Your task to perform on an android device: Open settings on Google Maps Image 0: 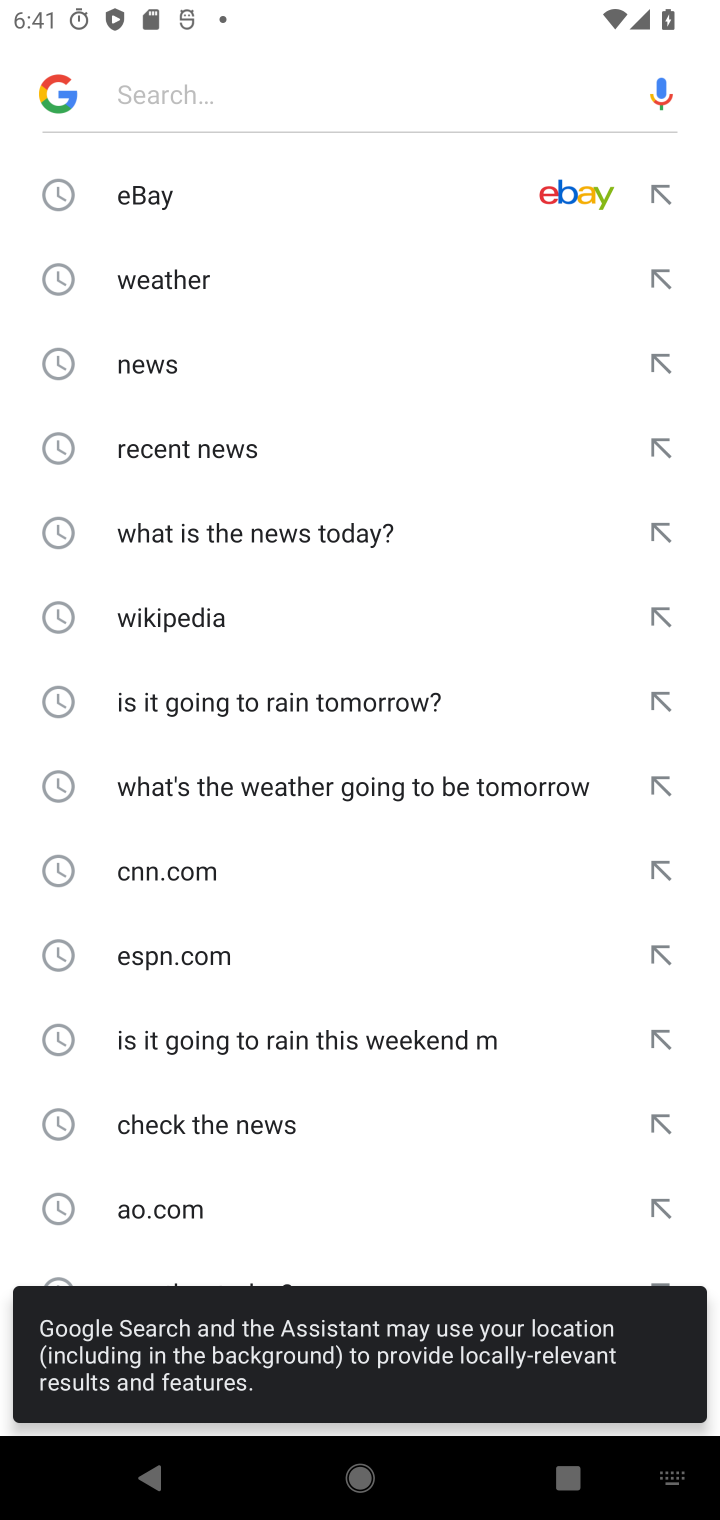
Step 0: press home button
Your task to perform on an android device: Open settings on Google Maps Image 1: 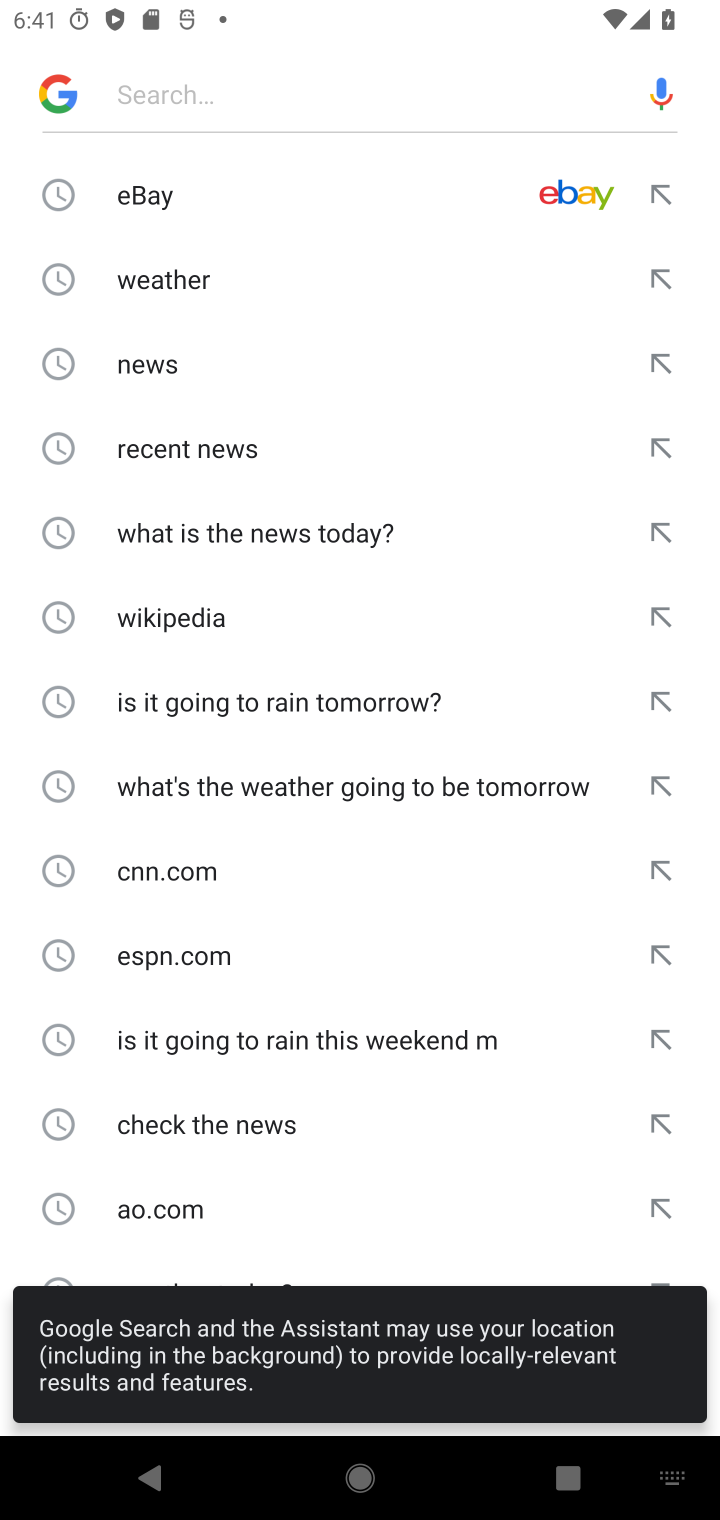
Step 1: press home button
Your task to perform on an android device: Open settings on Google Maps Image 2: 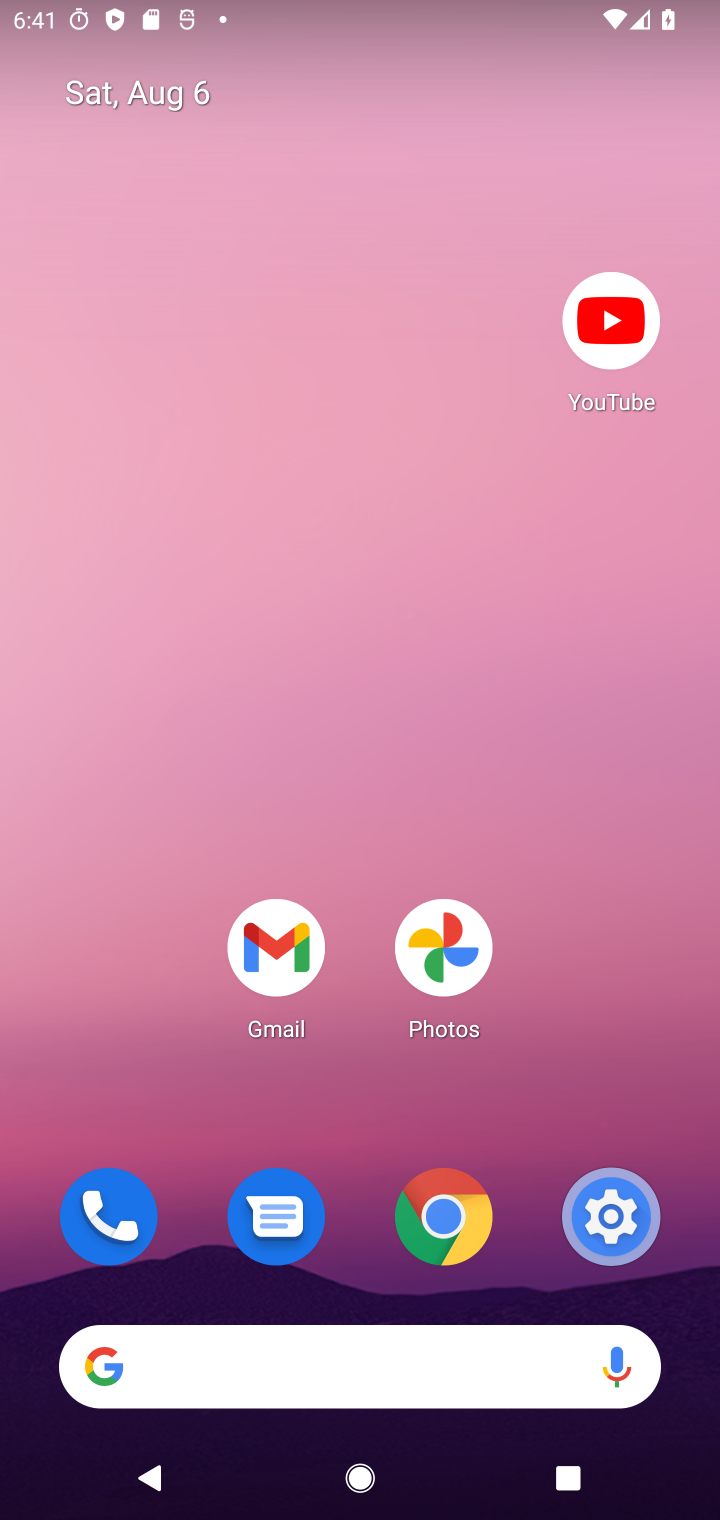
Step 2: drag from (567, 764) to (497, 72)
Your task to perform on an android device: Open settings on Google Maps Image 3: 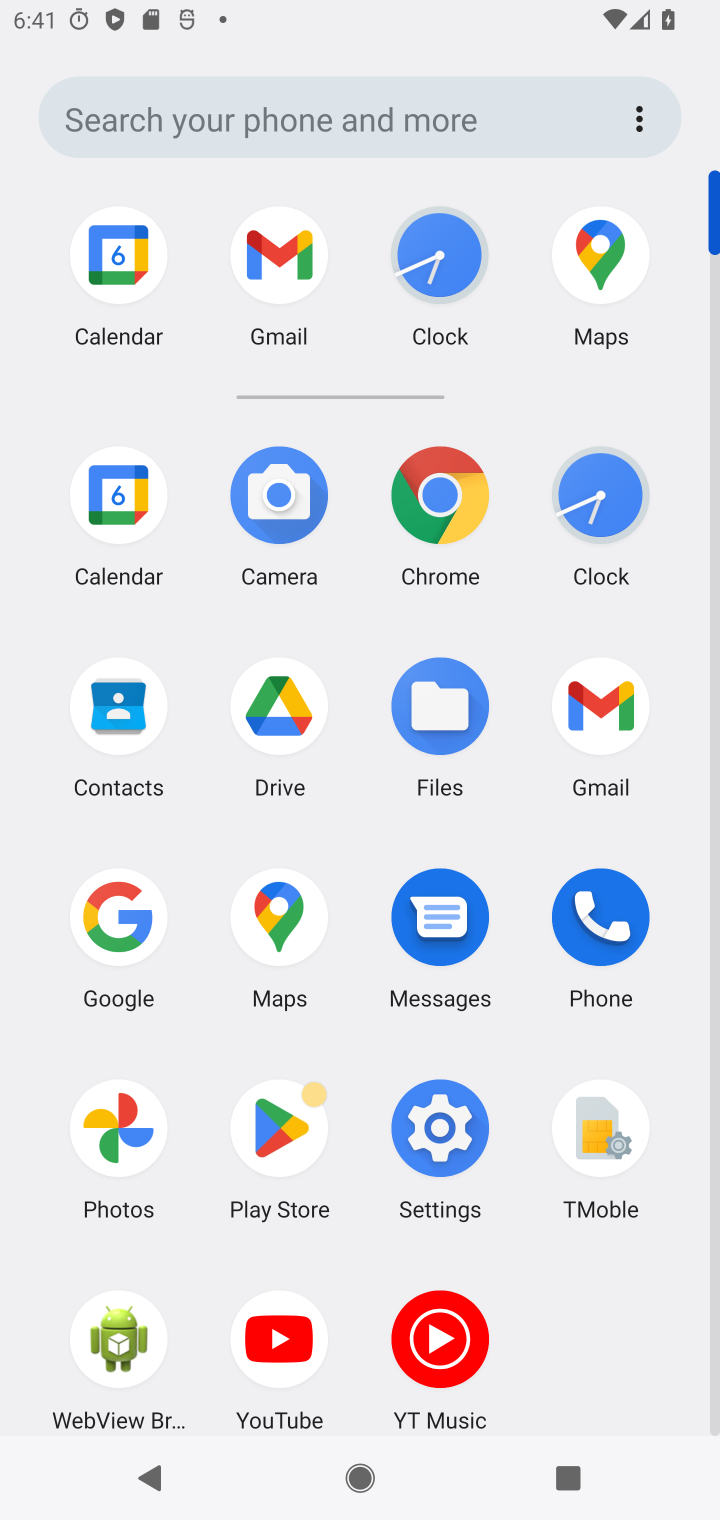
Step 3: click (287, 927)
Your task to perform on an android device: Open settings on Google Maps Image 4: 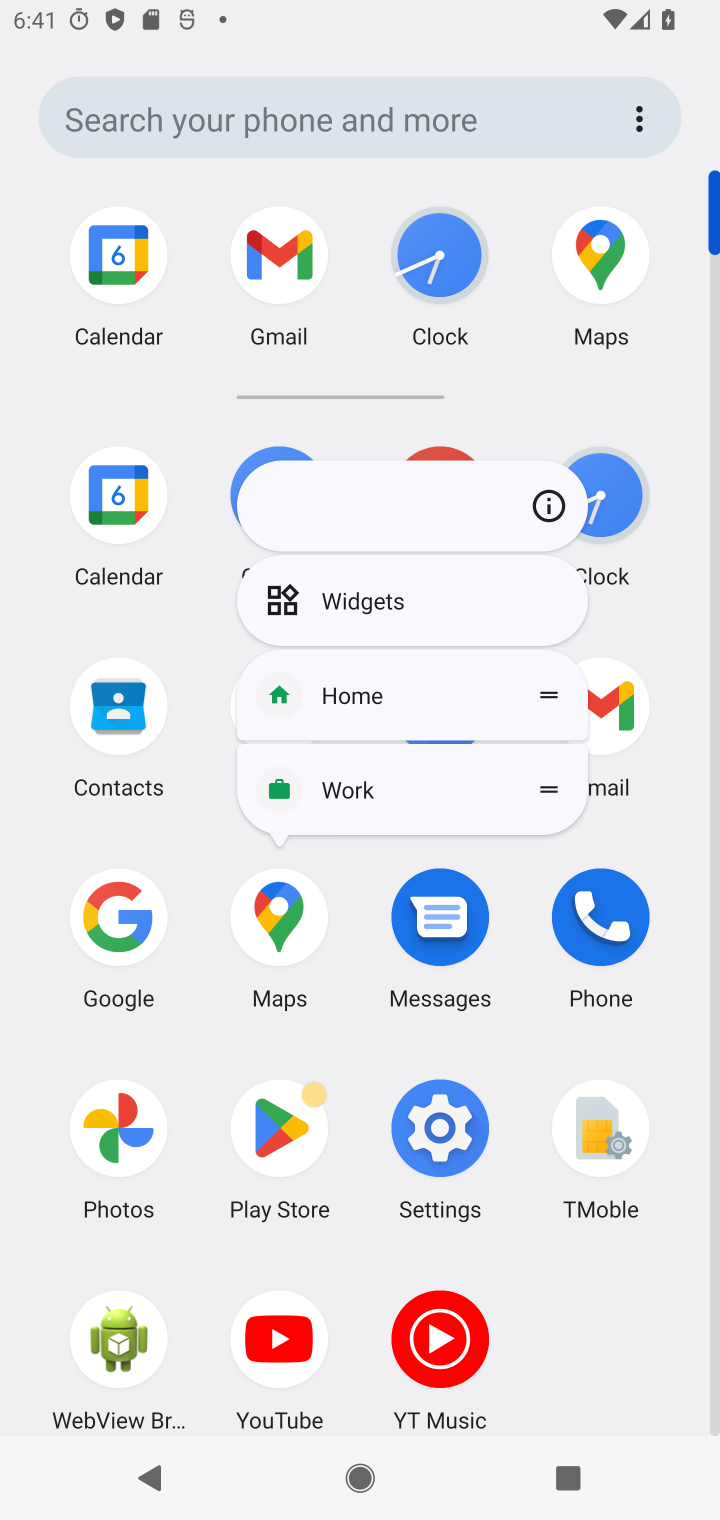
Step 4: click (287, 927)
Your task to perform on an android device: Open settings on Google Maps Image 5: 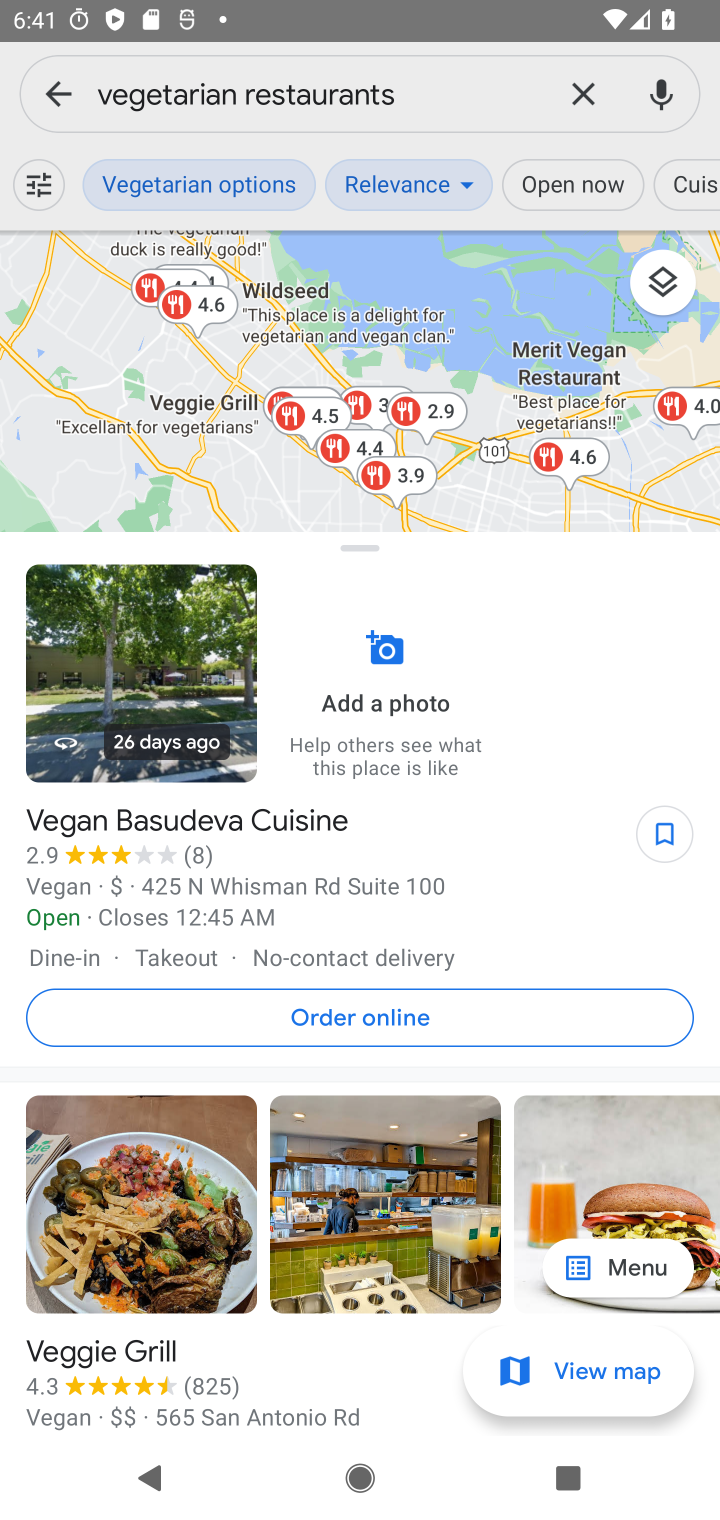
Step 5: press back button
Your task to perform on an android device: Open settings on Google Maps Image 6: 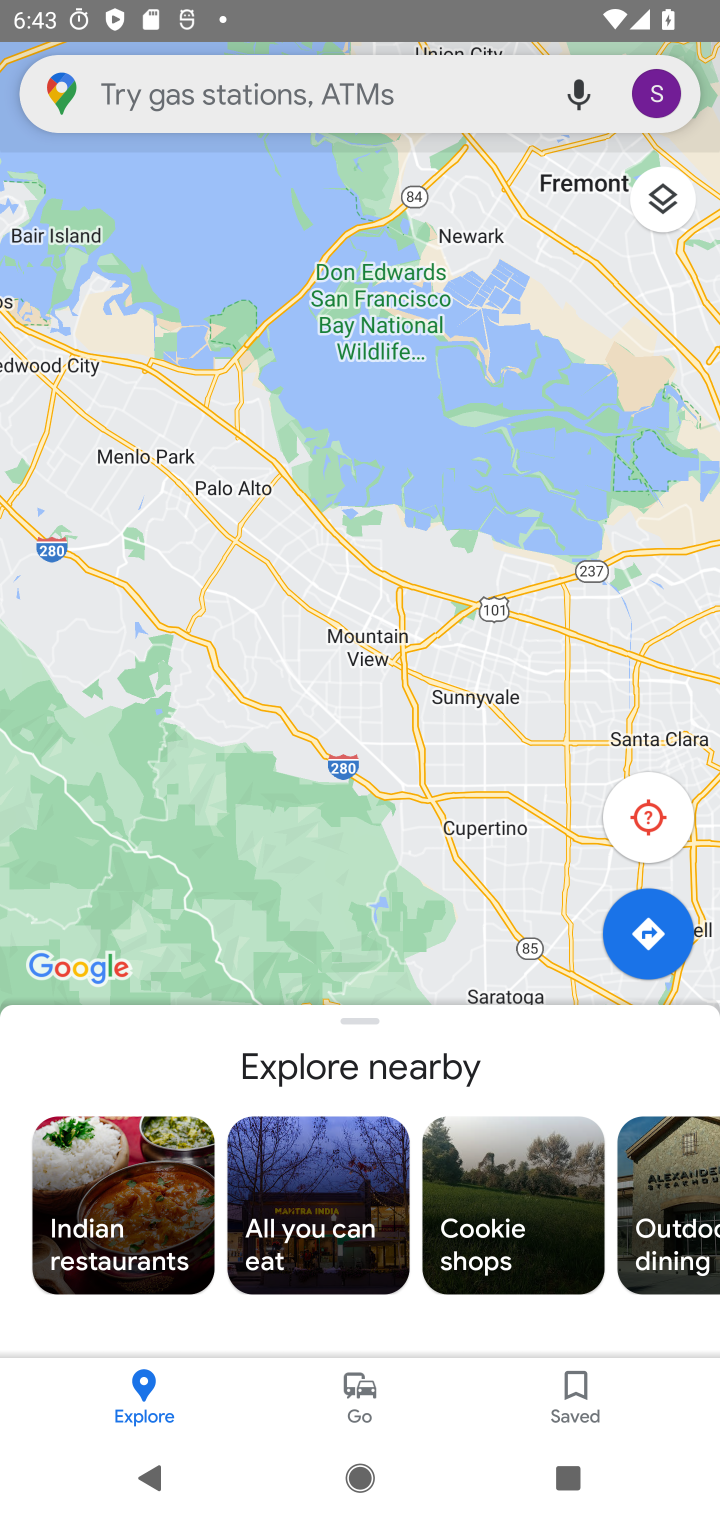
Step 6: click (672, 95)
Your task to perform on an android device: Open settings on Google Maps Image 7: 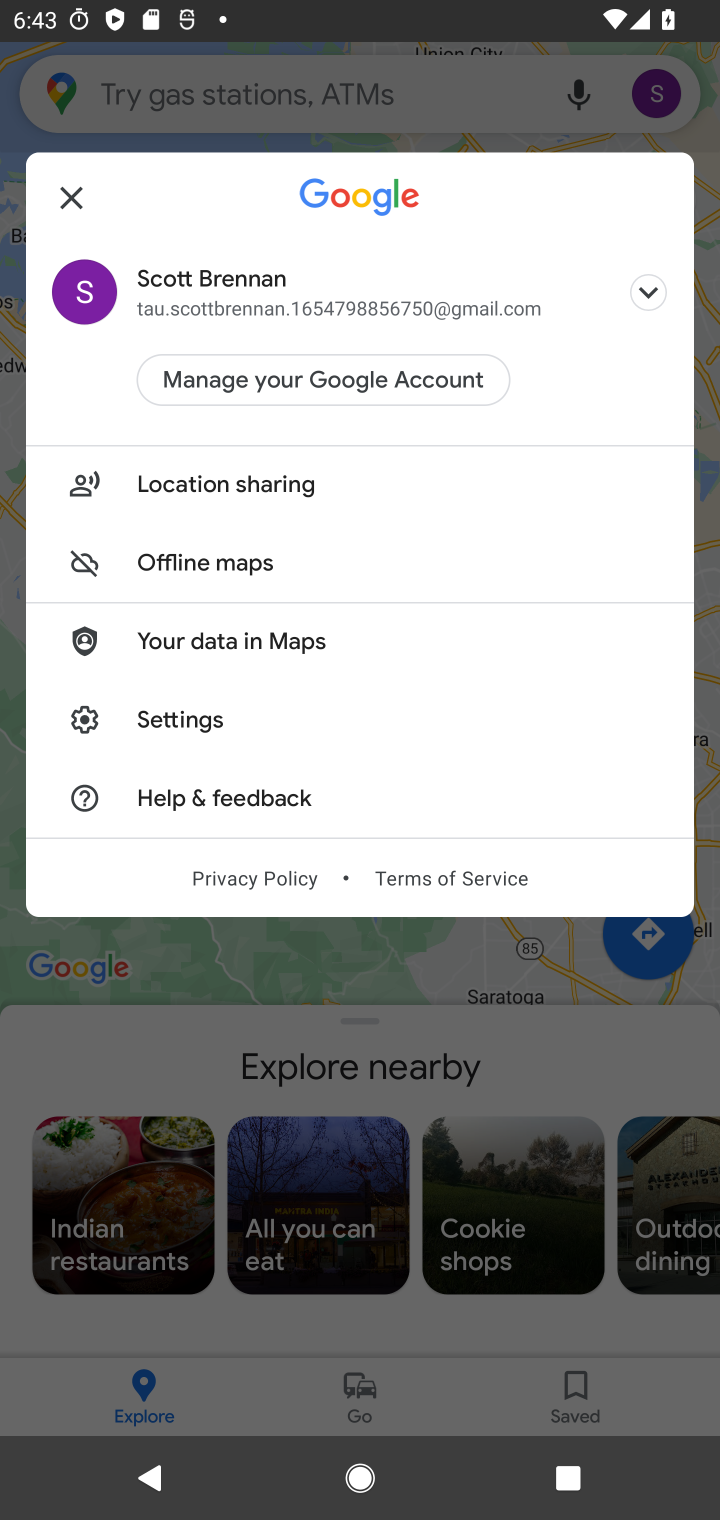
Step 7: click (164, 721)
Your task to perform on an android device: Open settings on Google Maps Image 8: 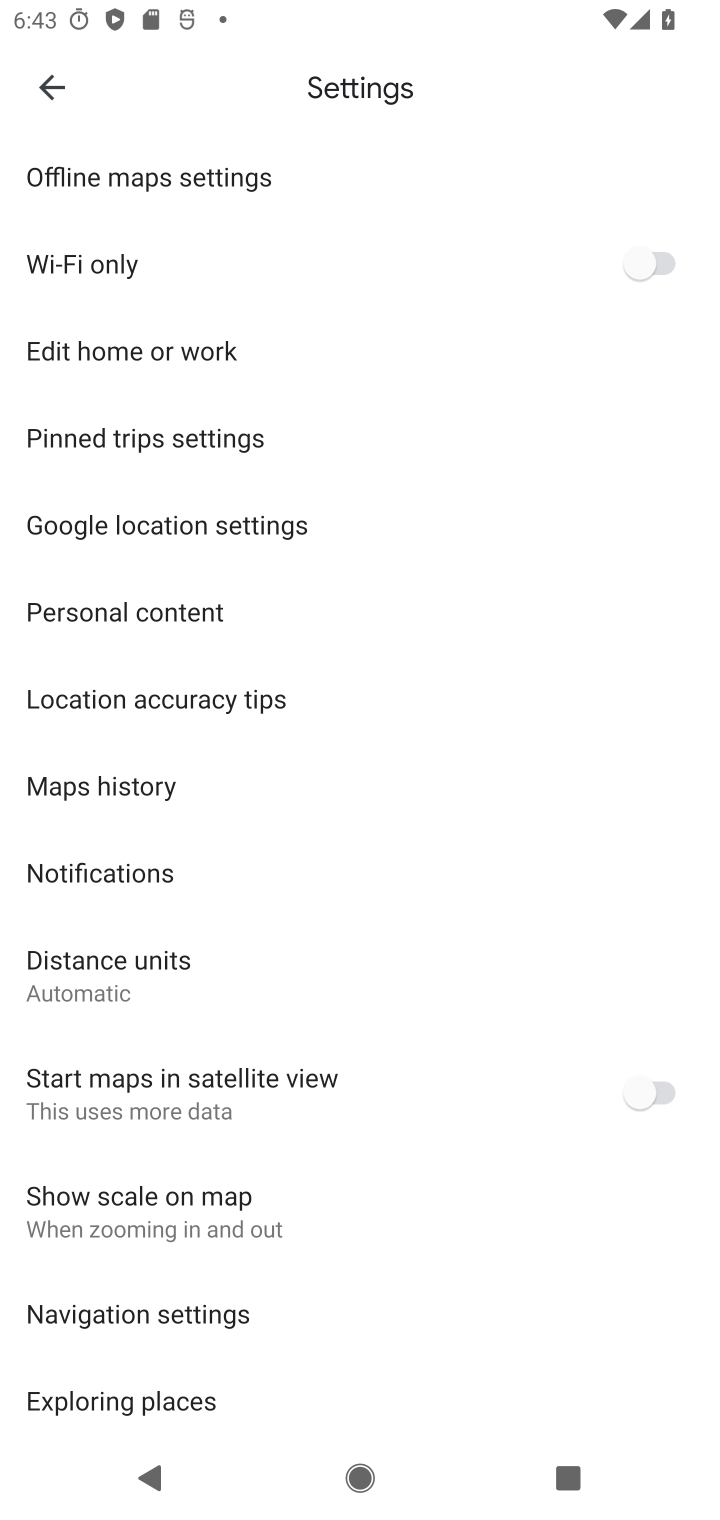
Step 8: task complete